Your task to perform on an android device: Open accessibility settings Image 0: 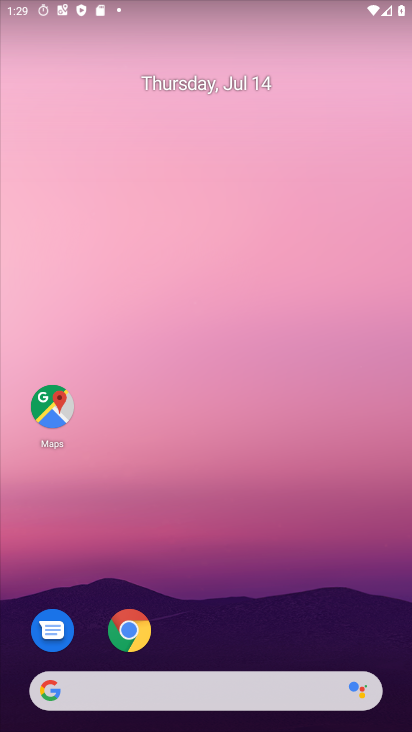
Step 0: drag from (169, 701) to (174, 252)
Your task to perform on an android device: Open accessibility settings Image 1: 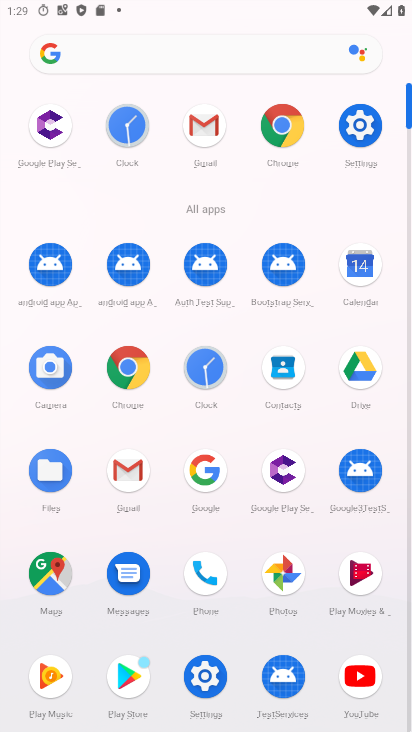
Step 1: click (356, 135)
Your task to perform on an android device: Open accessibility settings Image 2: 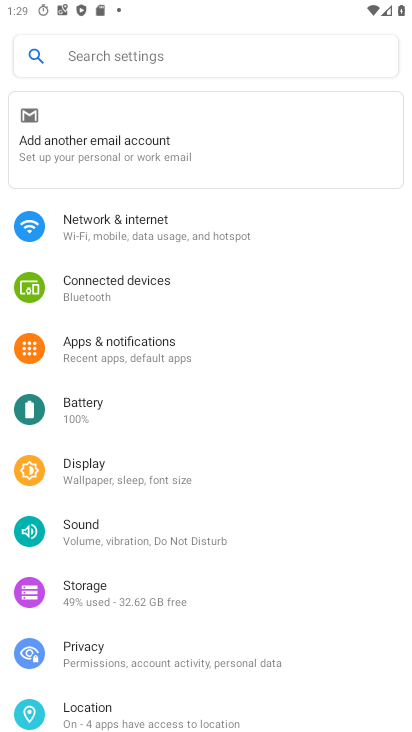
Step 2: drag from (261, 651) to (247, 196)
Your task to perform on an android device: Open accessibility settings Image 3: 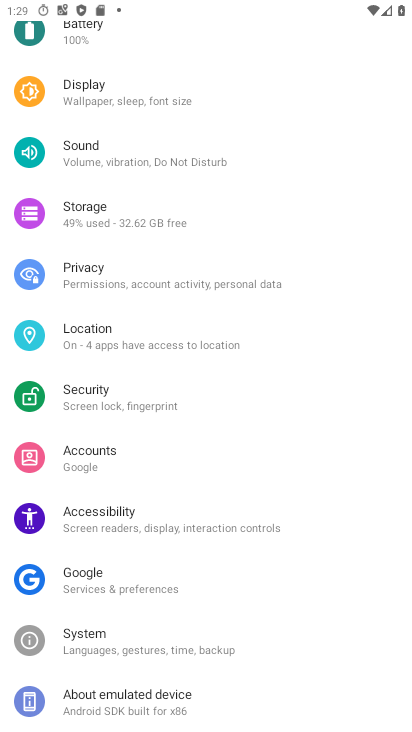
Step 3: click (120, 520)
Your task to perform on an android device: Open accessibility settings Image 4: 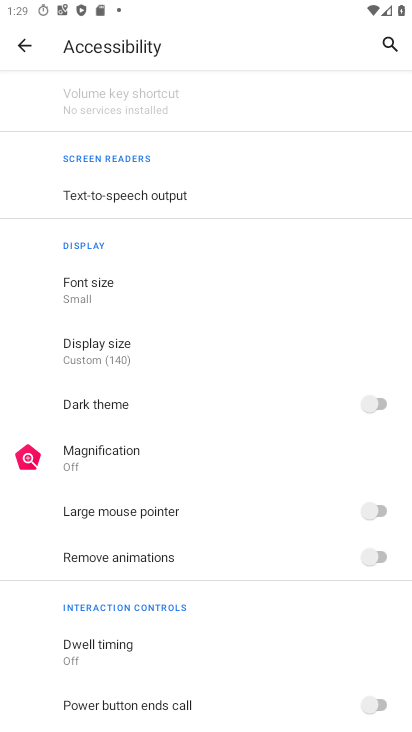
Step 4: task complete